Your task to perform on an android device: turn on the 12-hour format for clock Image 0: 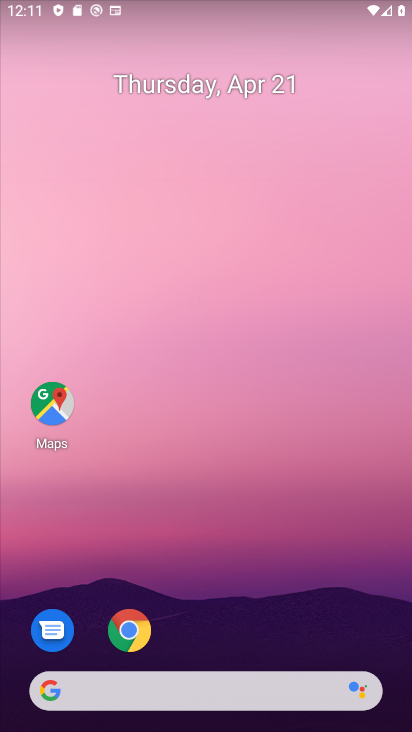
Step 0: drag from (301, 635) to (159, 7)
Your task to perform on an android device: turn on the 12-hour format for clock Image 1: 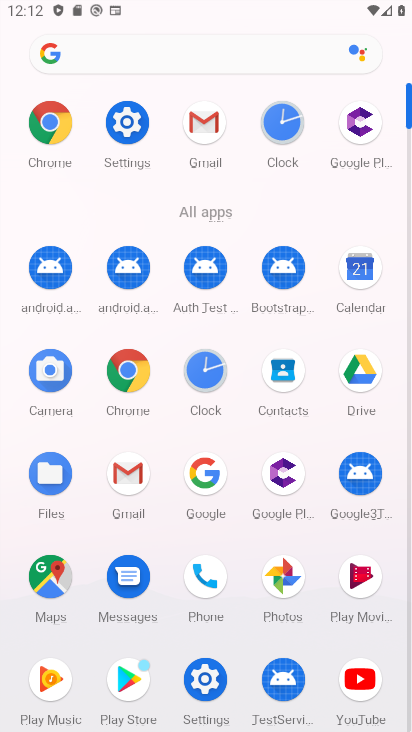
Step 1: click (280, 146)
Your task to perform on an android device: turn on the 12-hour format for clock Image 2: 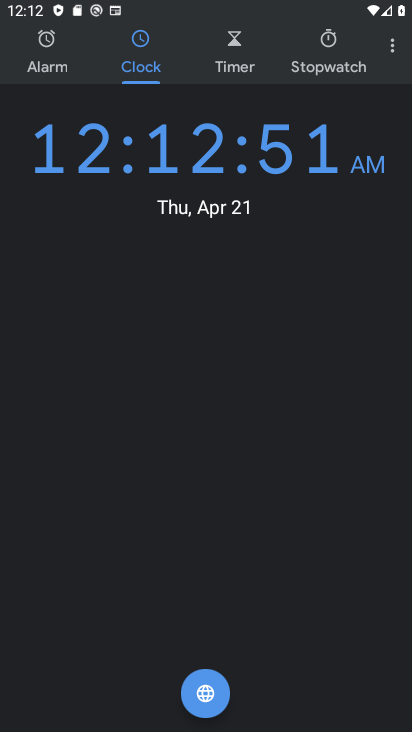
Step 2: click (391, 54)
Your task to perform on an android device: turn on the 12-hour format for clock Image 3: 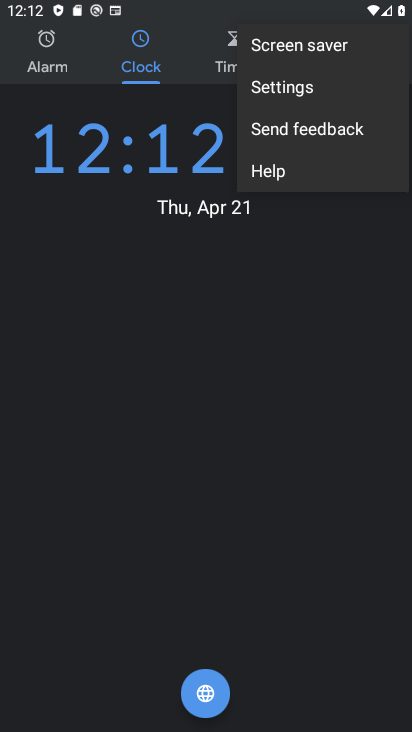
Step 3: click (310, 94)
Your task to perform on an android device: turn on the 12-hour format for clock Image 4: 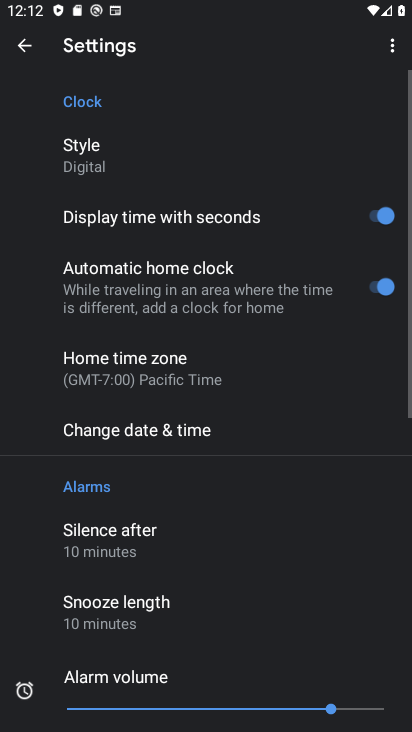
Step 4: click (224, 440)
Your task to perform on an android device: turn on the 12-hour format for clock Image 5: 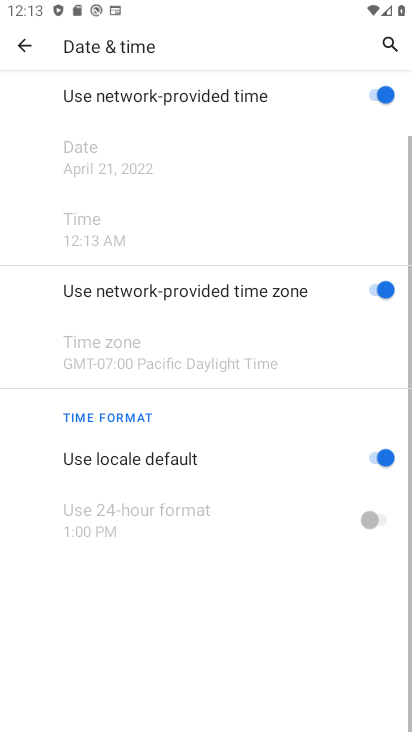
Step 5: click (387, 458)
Your task to perform on an android device: turn on the 12-hour format for clock Image 6: 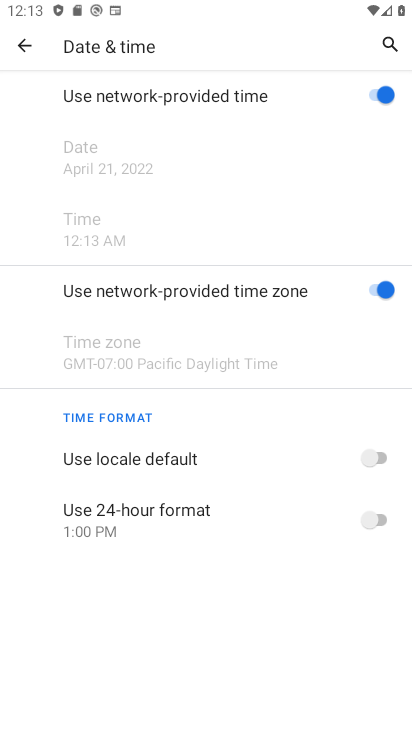
Step 6: task complete